Your task to perform on an android device: Show the shopping cart on amazon.com. Image 0: 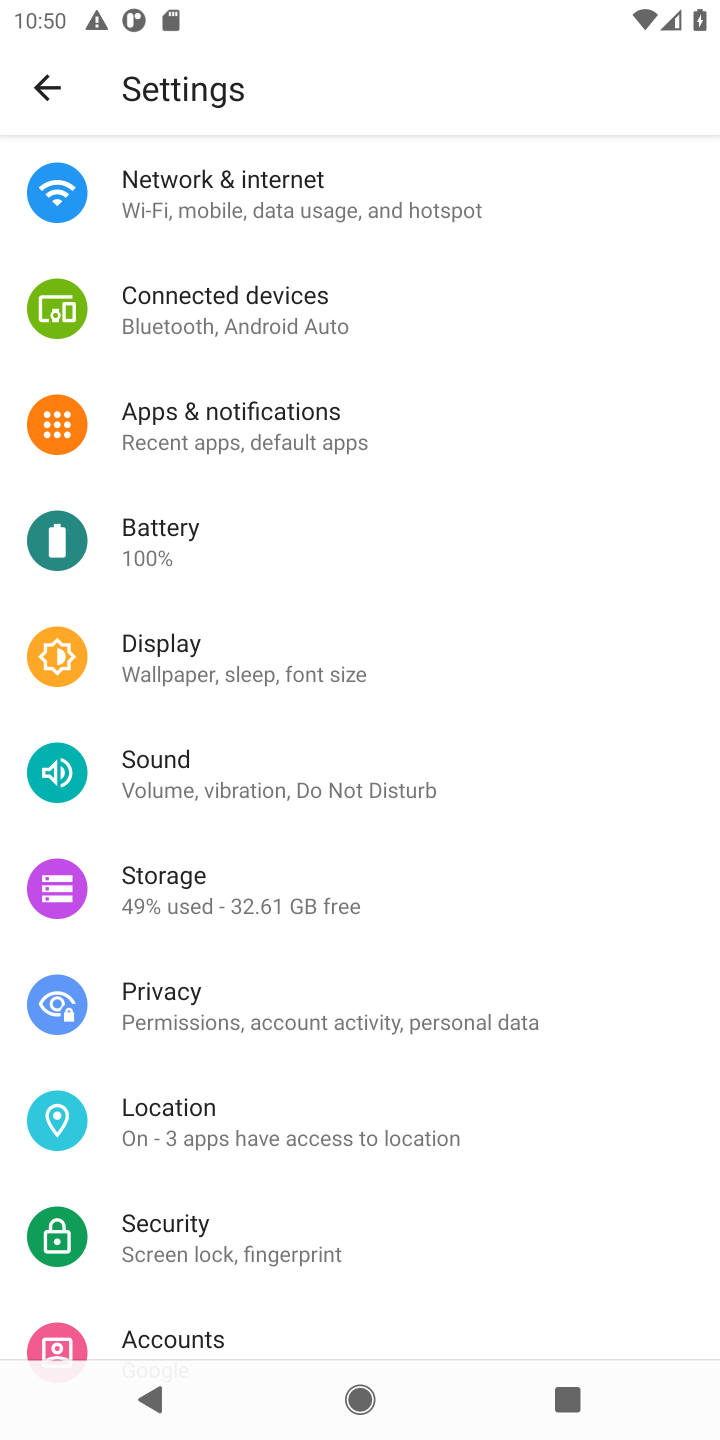
Step 0: press home button
Your task to perform on an android device: Show the shopping cart on amazon.com. Image 1: 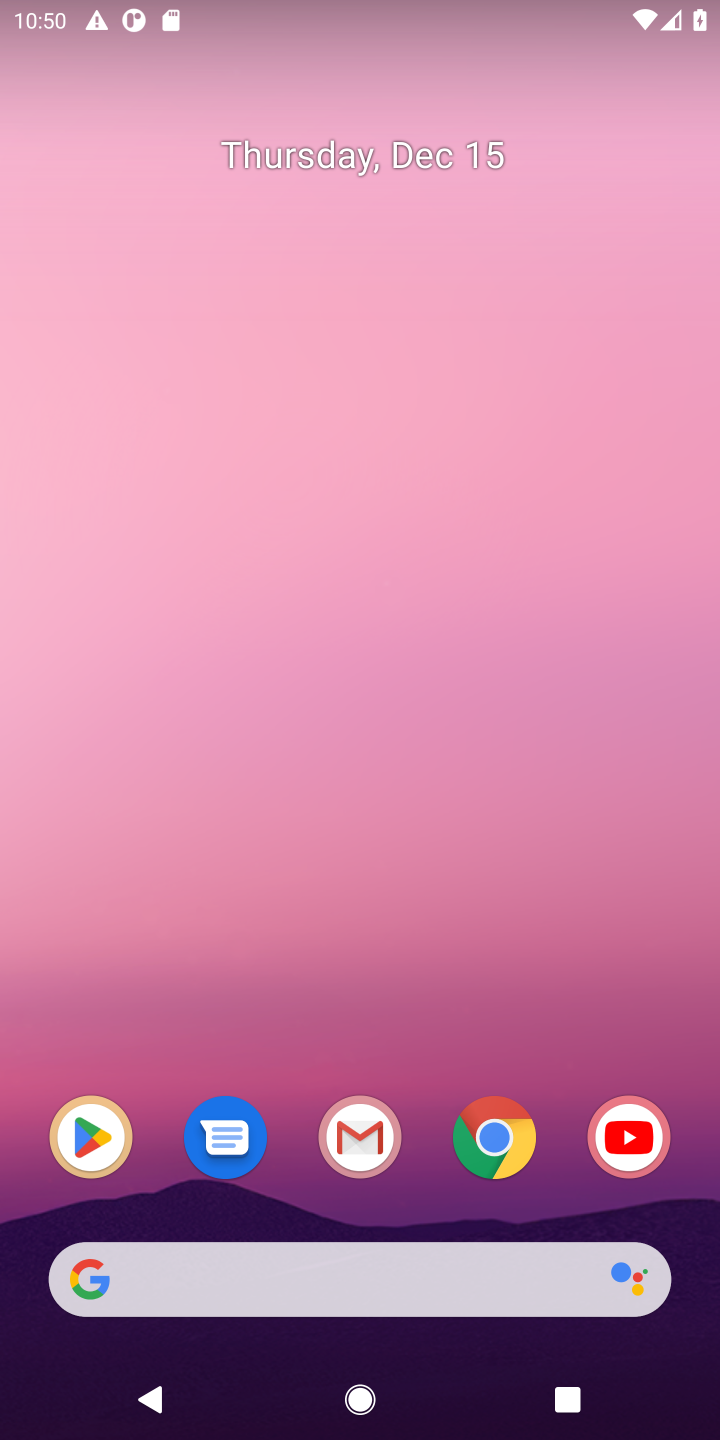
Step 1: drag from (242, 1290) to (194, 319)
Your task to perform on an android device: Show the shopping cart on amazon.com. Image 2: 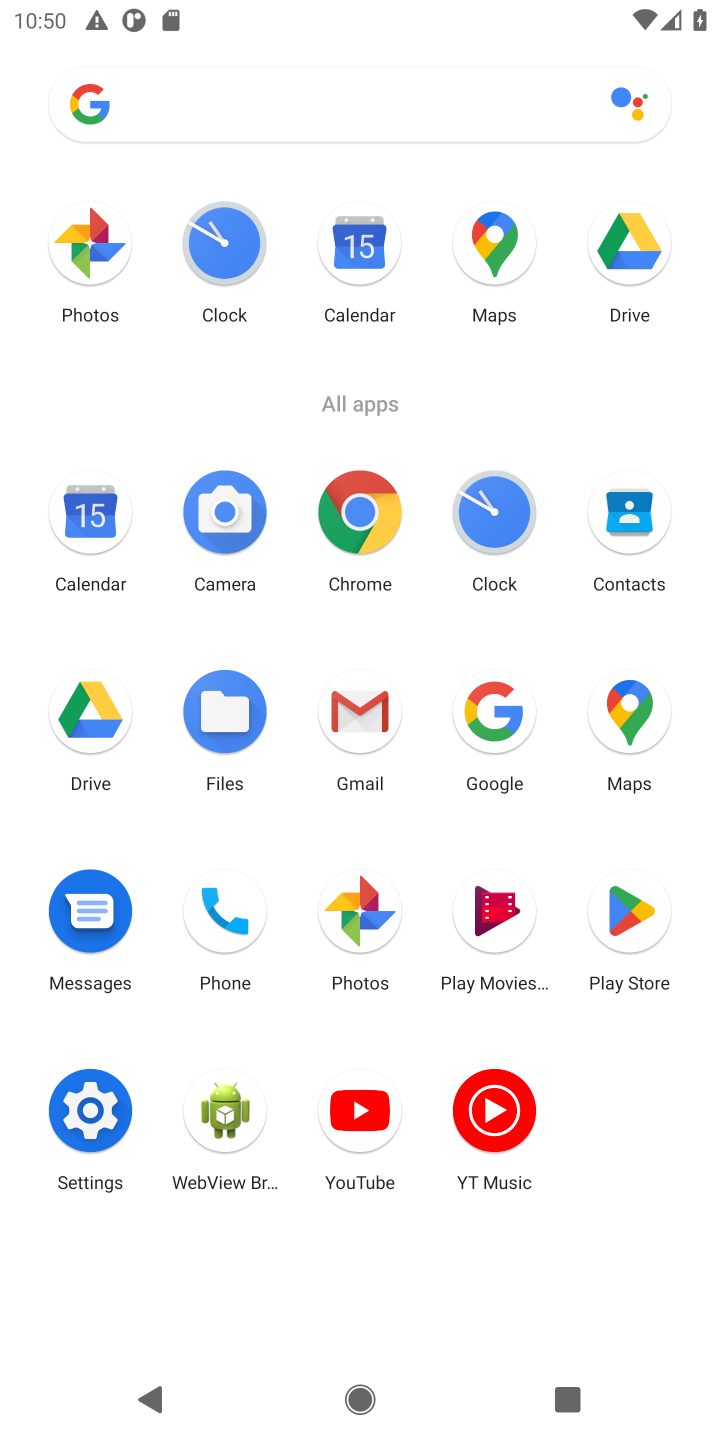
Step 2: click (494, 714)
Your task to perform on an android device: Show the shopping cart on amazon.com. Image 3: 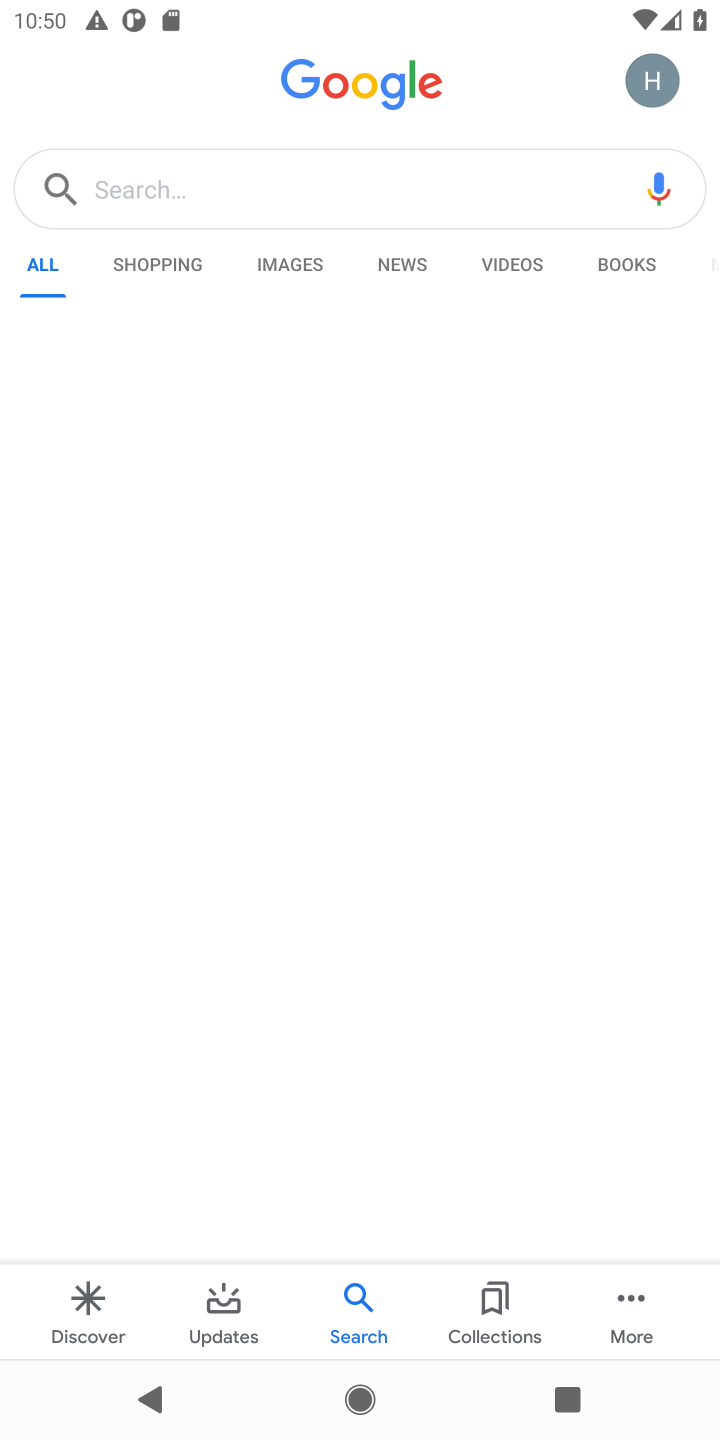
Step 3: click (296, 197)
Your task to perform on an android device: Show the shopping cart on amazon.com. Image 4: 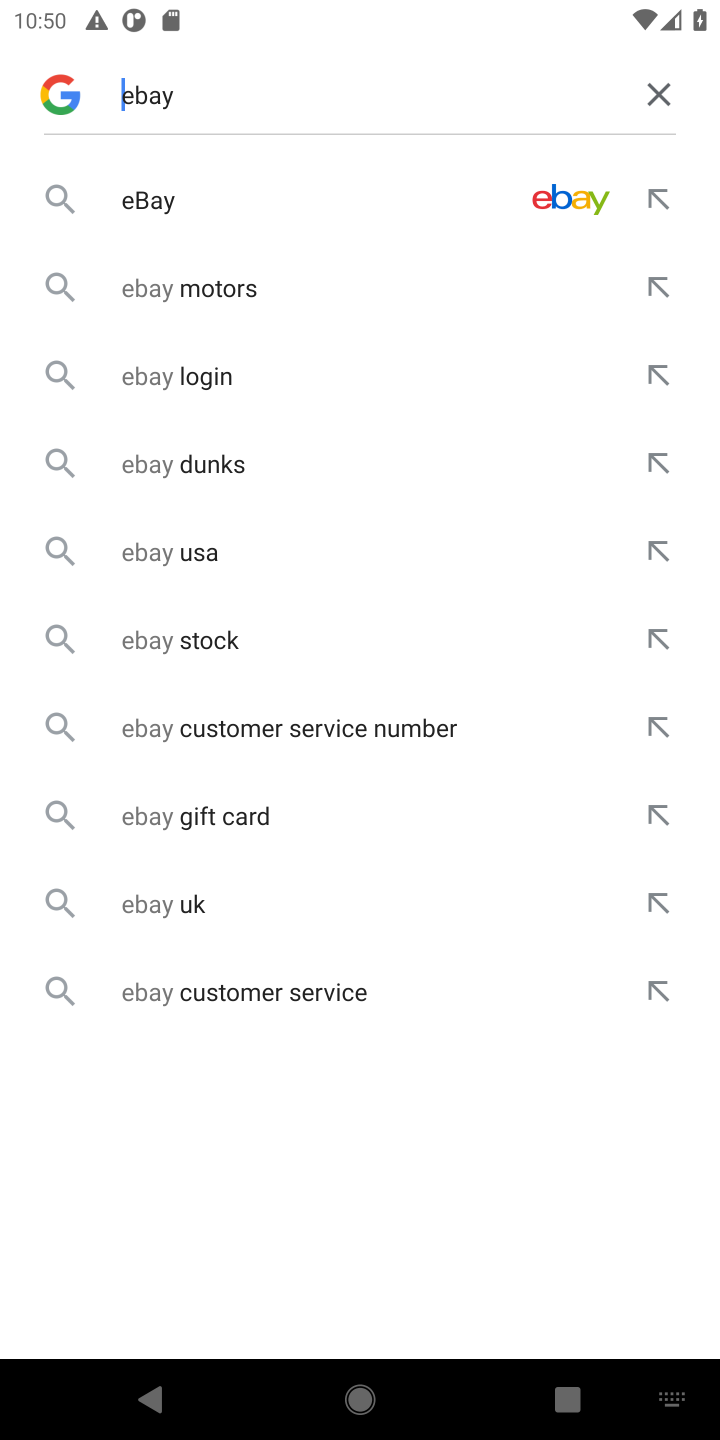
Step 4: click (656, 96)
Your task to perform on an android device: Show the shopping cart on amazon.com. Image 5: 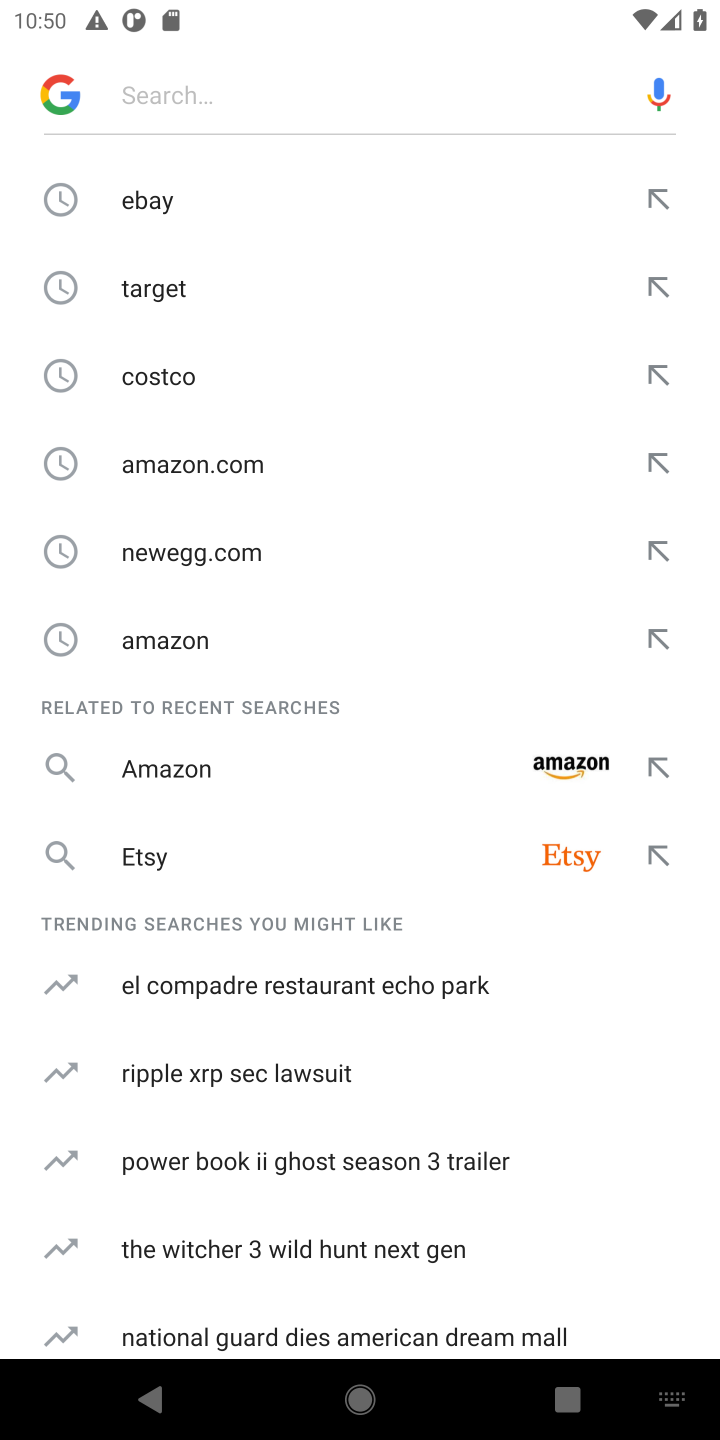
Step 5: click (161, 641)
Your task to perform on an android device: Show the shopping cart on amazon.com. Image 6: 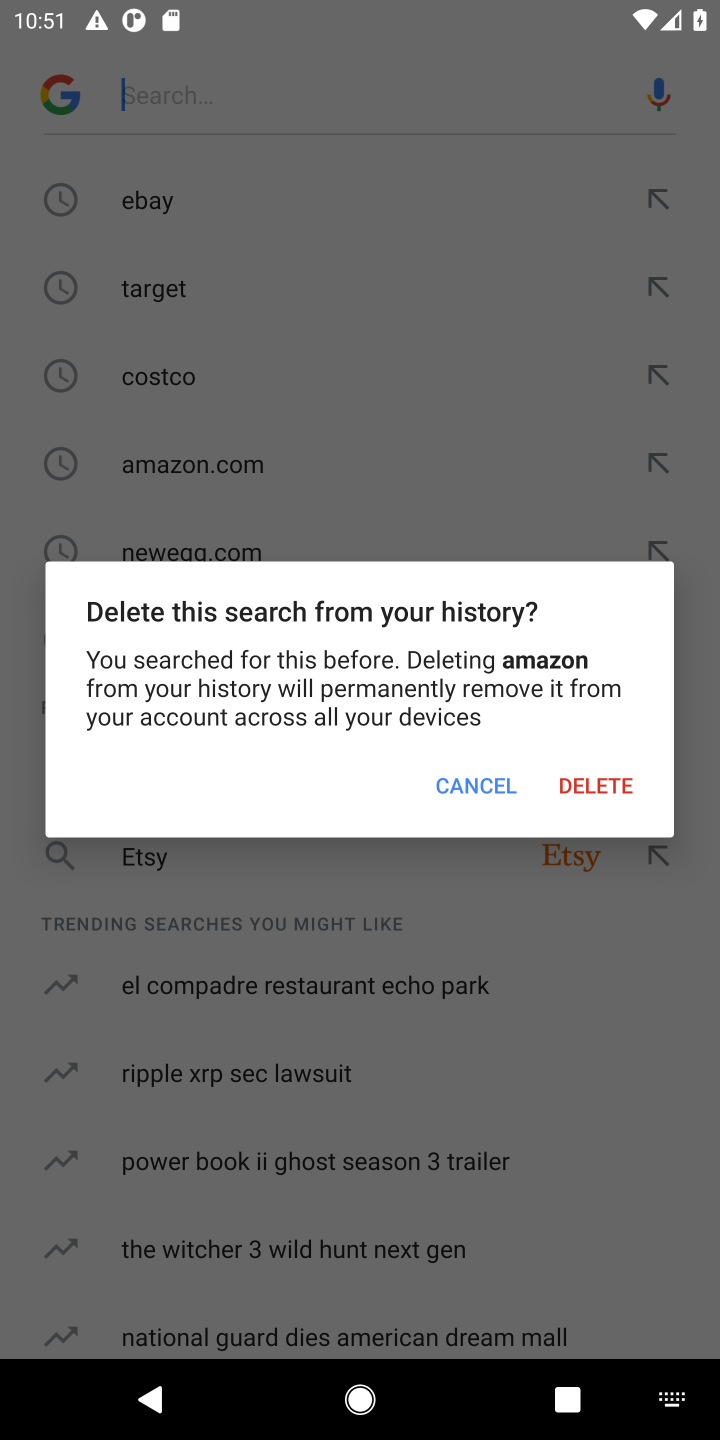
Step 6: click (465, 788)
Your task to perform on an android device: Show the shopping cart on amazon.com. Image 7: 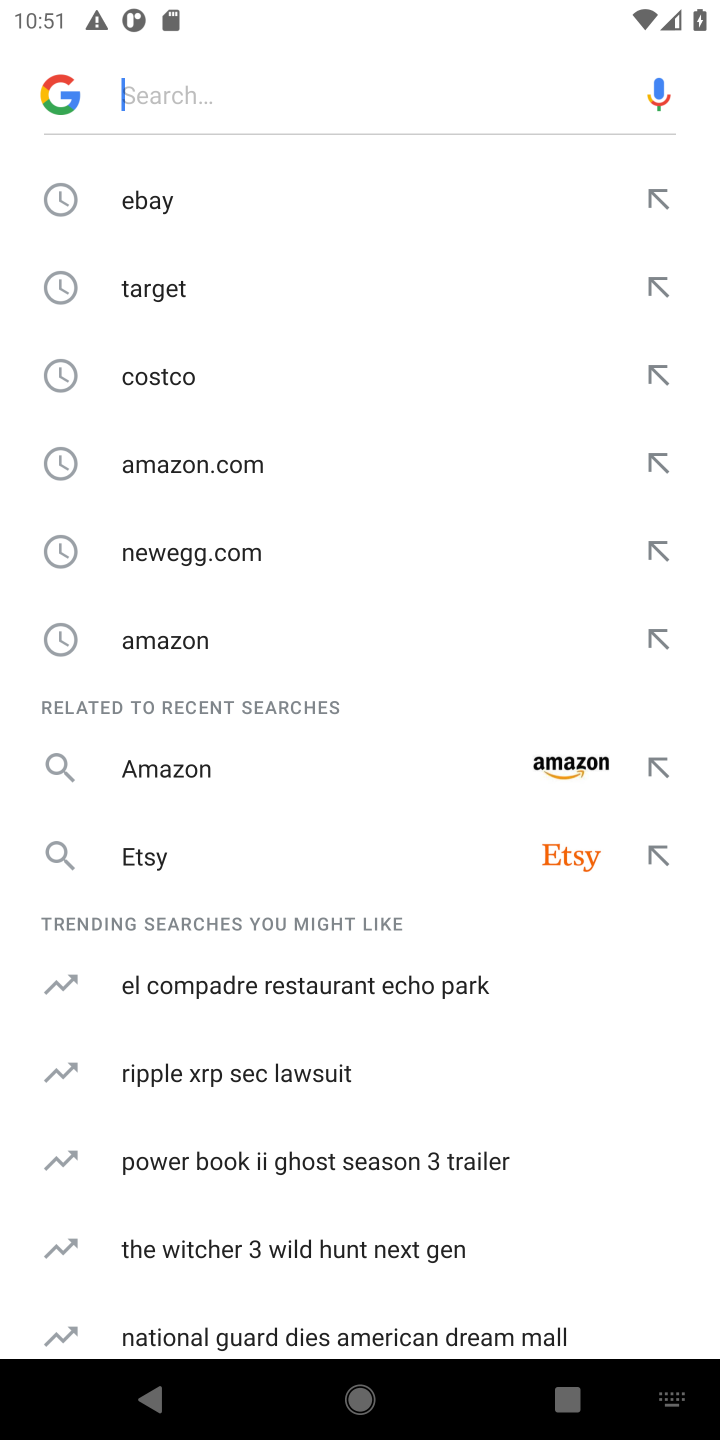
Step 7: click (168, 629)
Your task to perform on an android device: Show the shopping cart on amazon.com. Image 8: 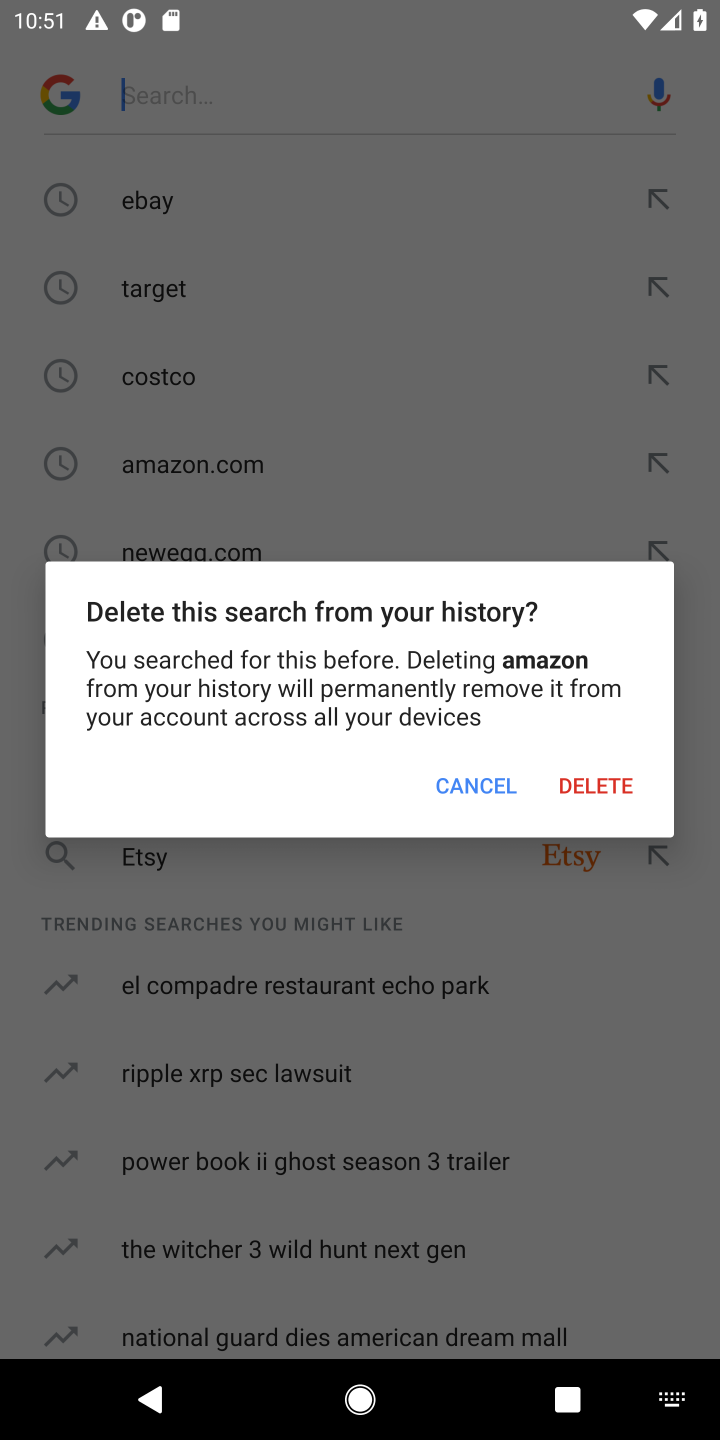
Step 8: click (447, 795)
Your task to perform on an android device: Show the shopping cart on amazon.com. Image 9: 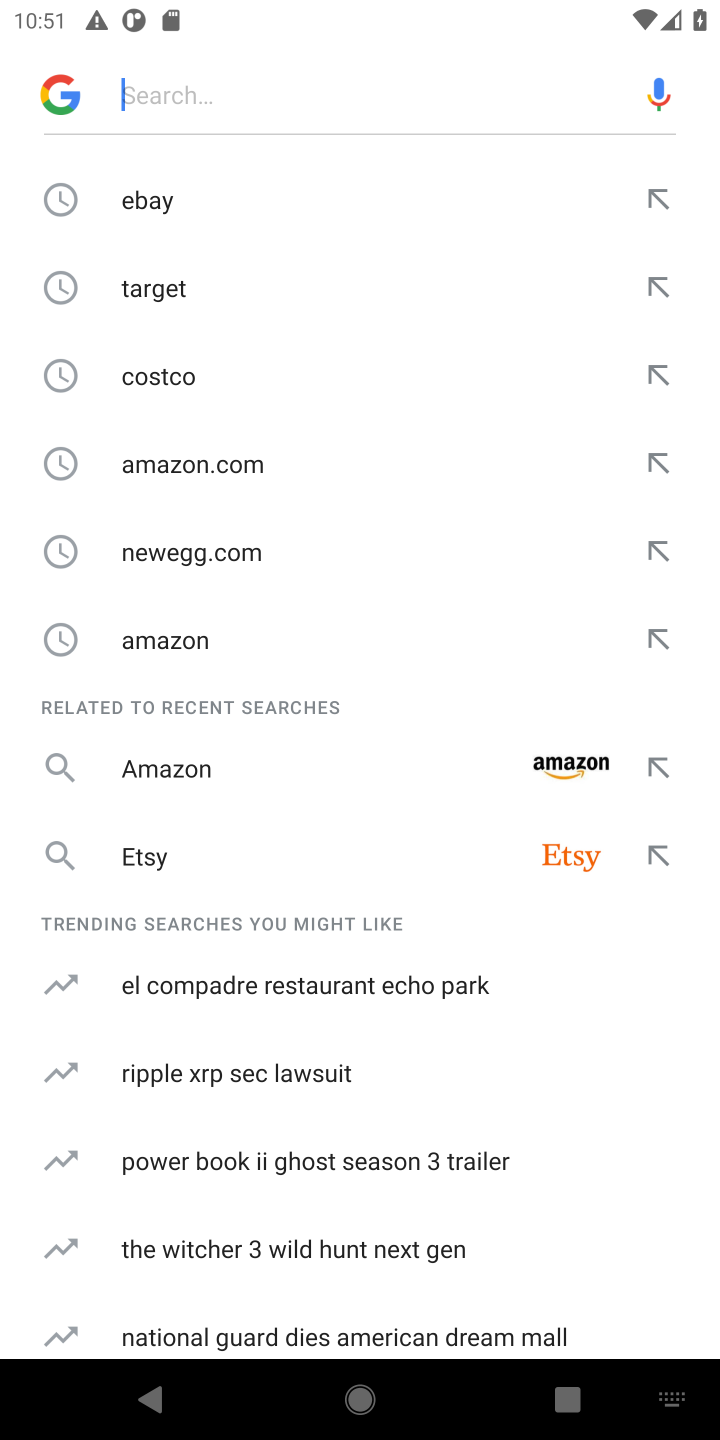
Step 9: click (156, 636)
Your task to perform on an android device: Show the shopping cart on amazon.com. Image 10: 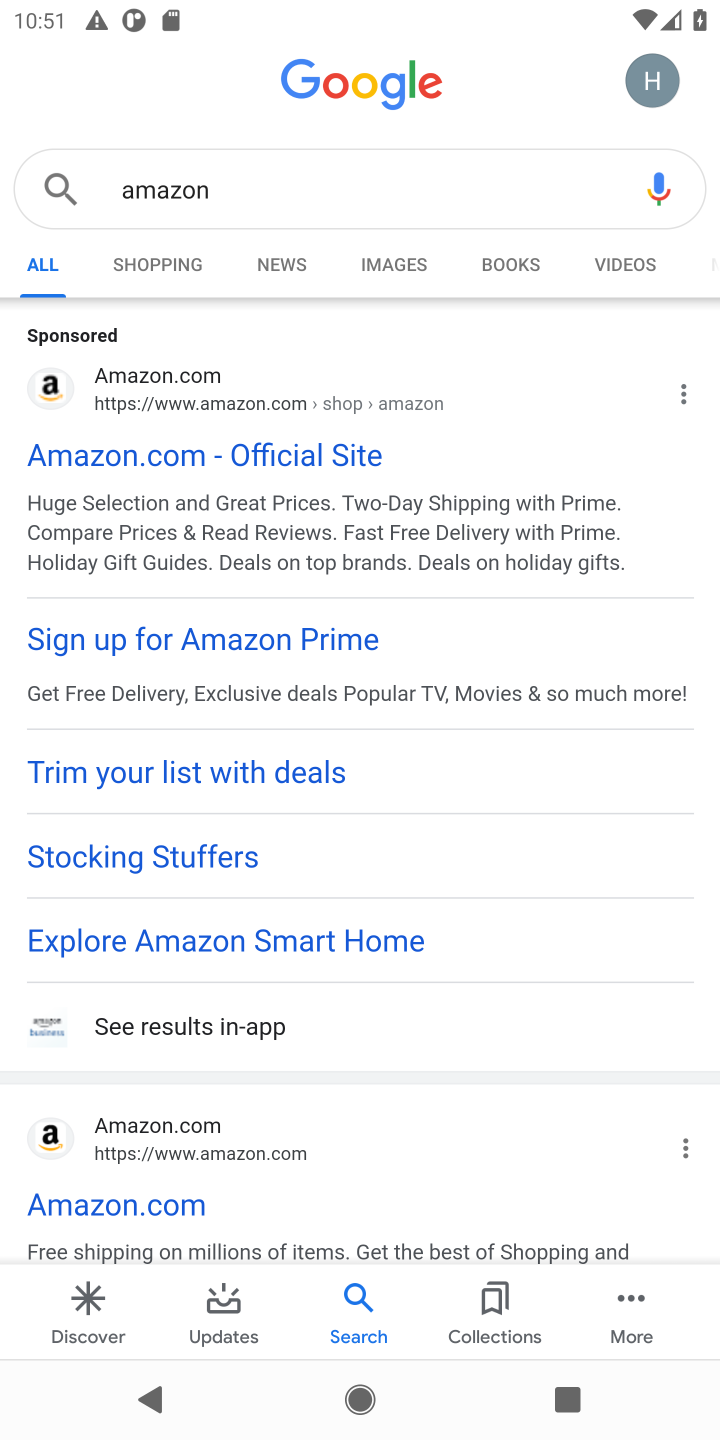
Step 10: drag from (355, 1036) to (337, 604)
Your task to perform on an android device: Show the shopping cart on amazon.com. Image 11: 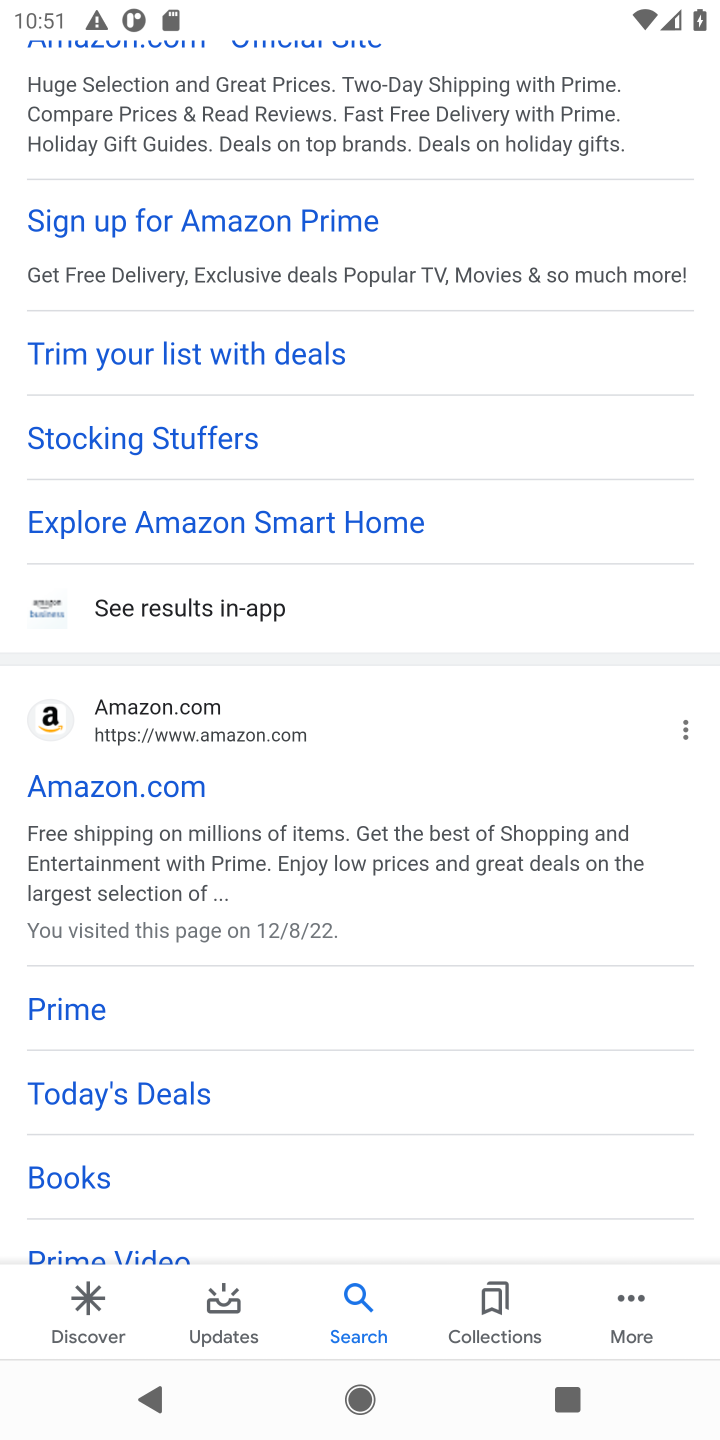
Step 11: click (113, 764)
Your task to perform on an android device: Show the shopping cart on amazon.com. Image 12: 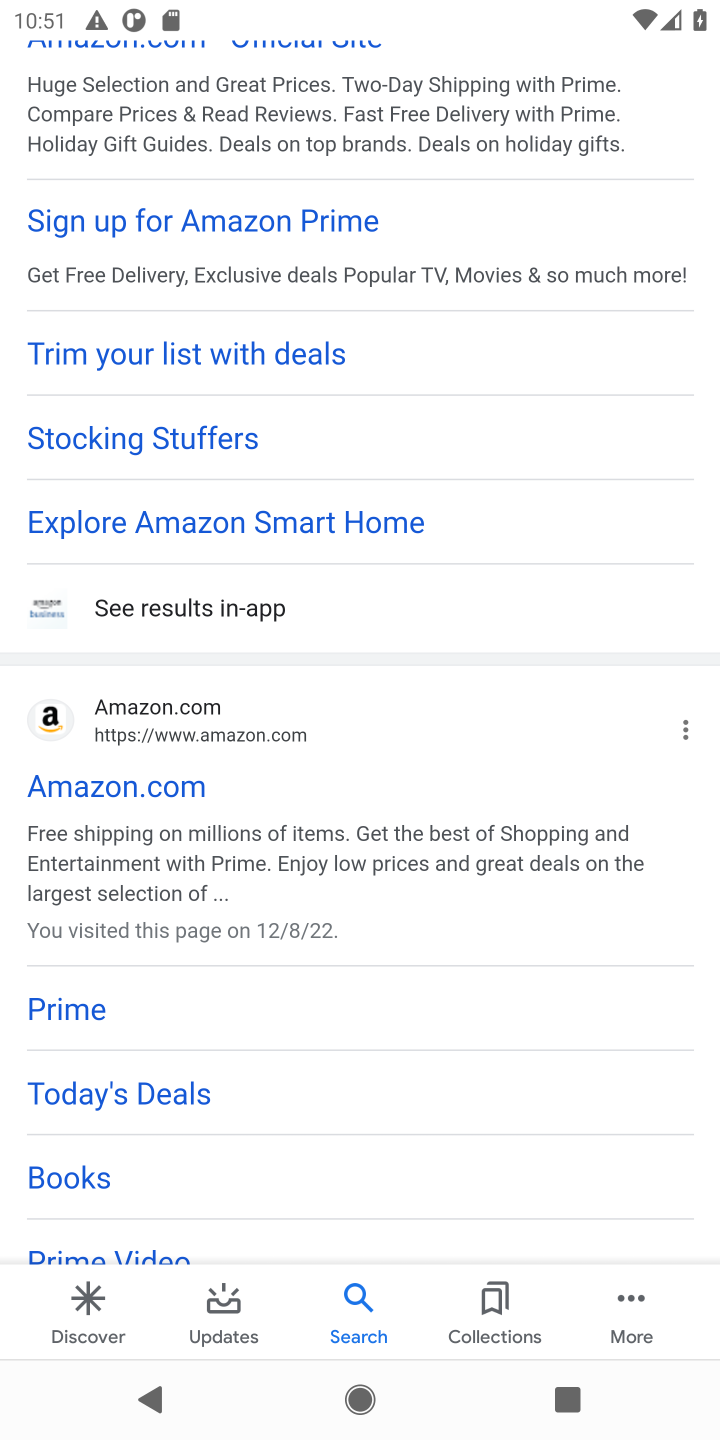
Step 12: click (130, 784)
Your task to perform on an android device: Show the shopping cart on amazon.com. Image 13: 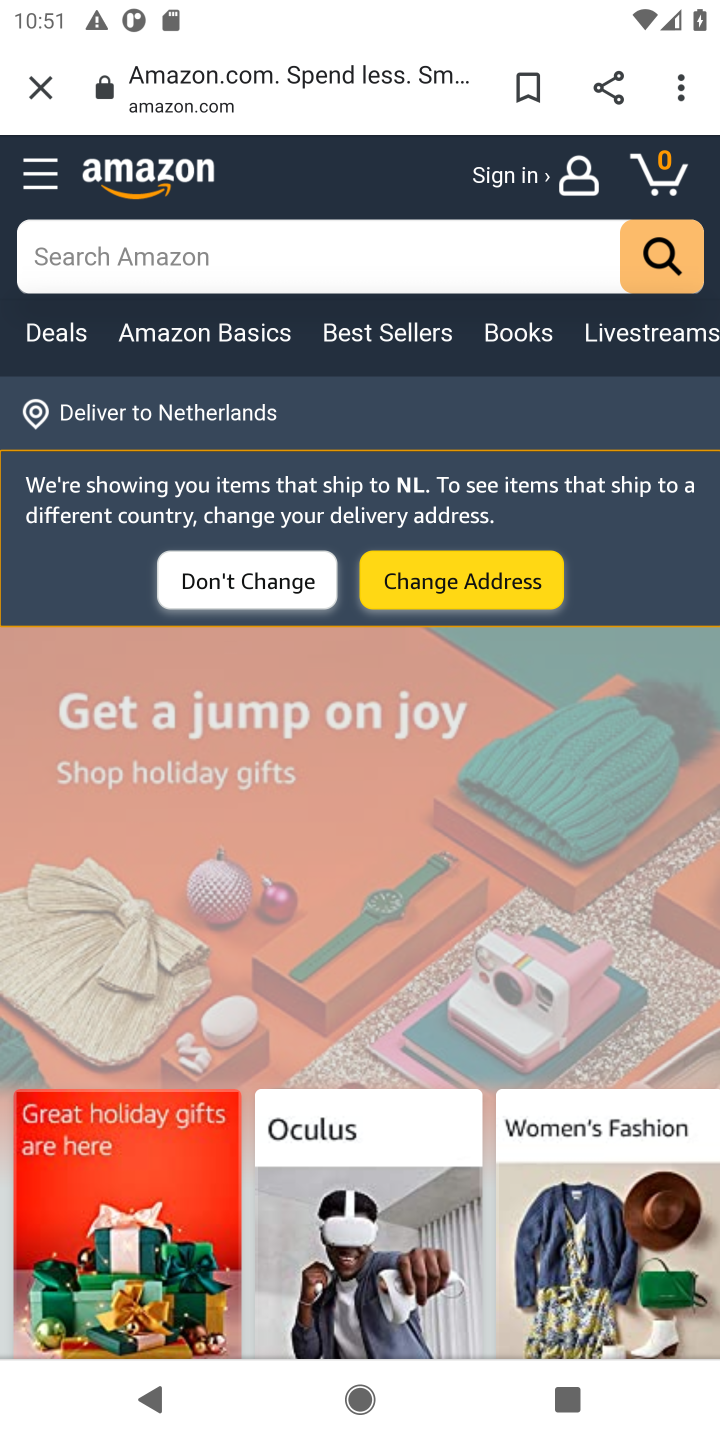
Step 13: click (216, 271)
Your task to perform on an android device: Show the shopping cart on amazon.com. Image 14: 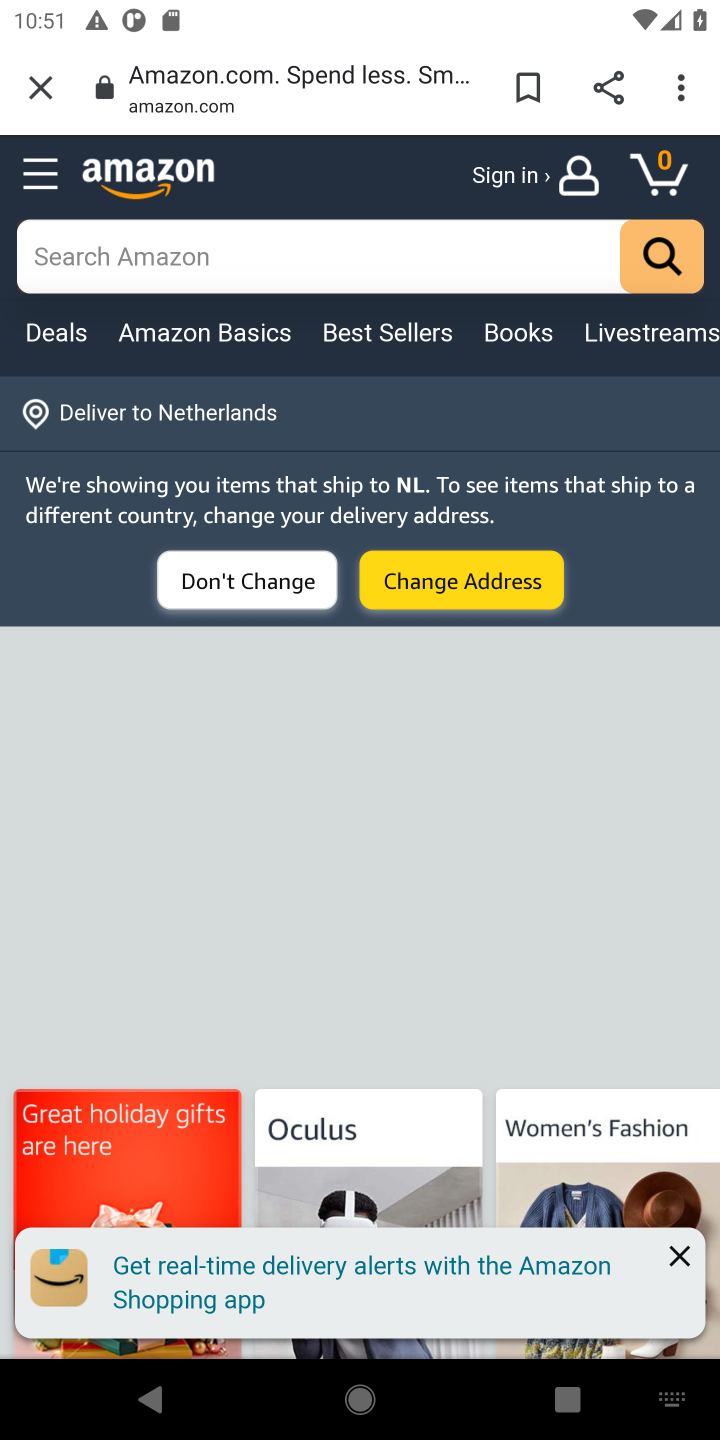
Step 14: drag from (401, 1049) to (350, 552)
Your task to perform on an android device: Show the shopping cart on amazon.com. Image 15: 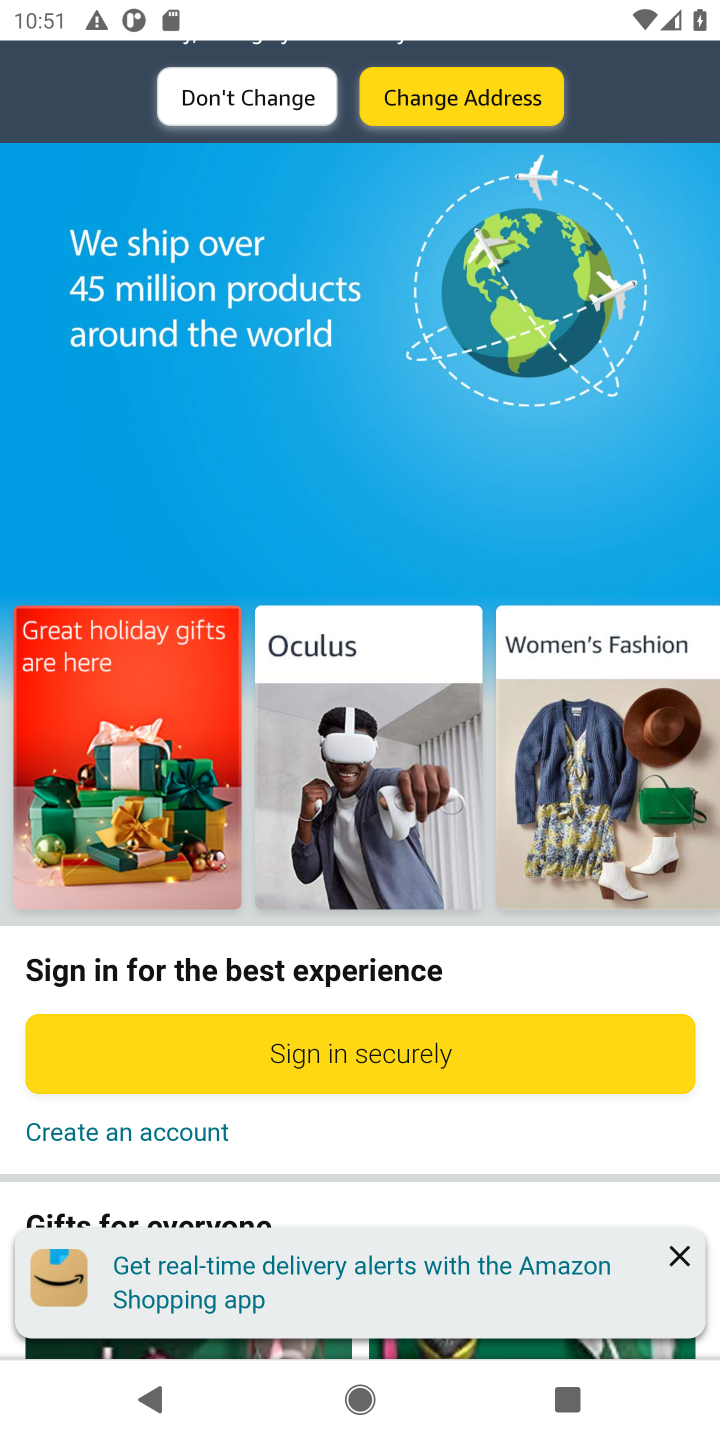
Step 15: click (674, 174)
Your task to perform on an android device: Show the shopping cart on amazon.com. Image 16: 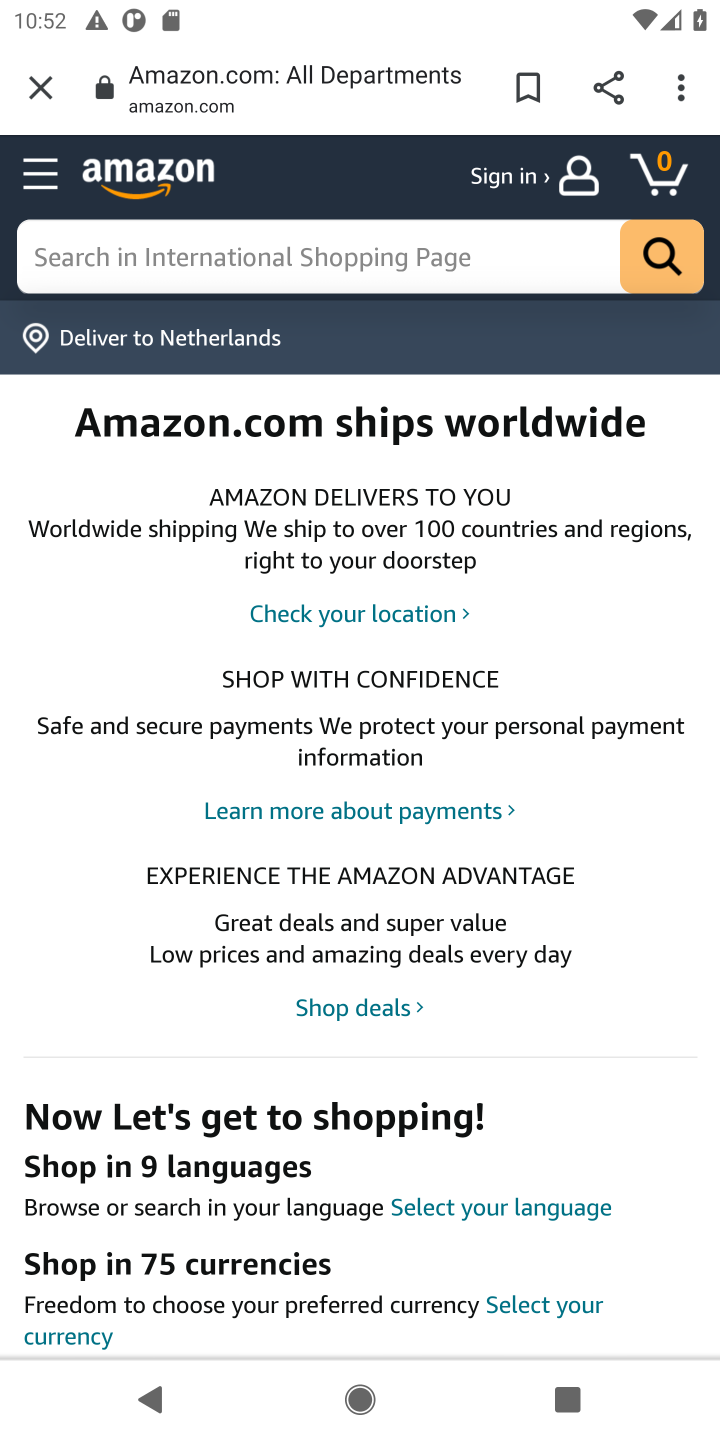
Step 16: task complete